Your task to perform on an android device: Check the news Image 0: 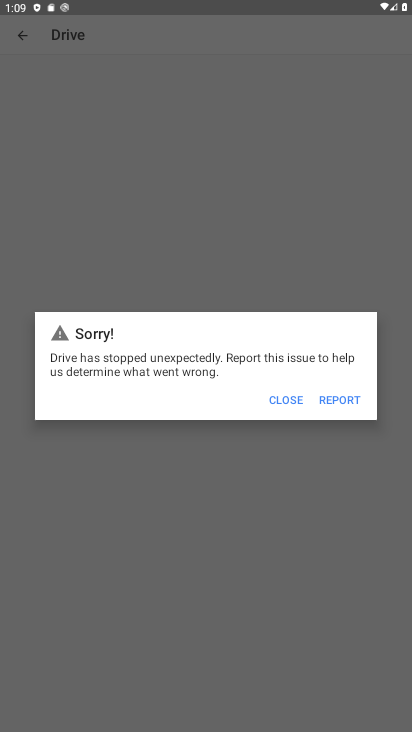
Step 0: task complete